Your task to perform on an android device: Open Chrome and go to settings Image 0: 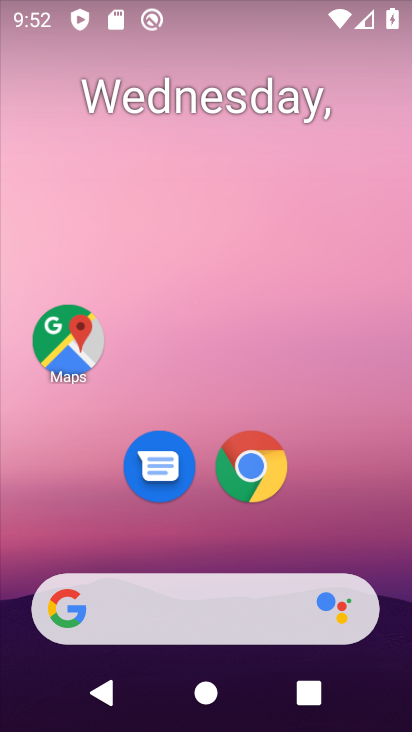
Step 0: click (252, 468)
Your task to perform on an android device: Open Chrome and go to settings Image 1: 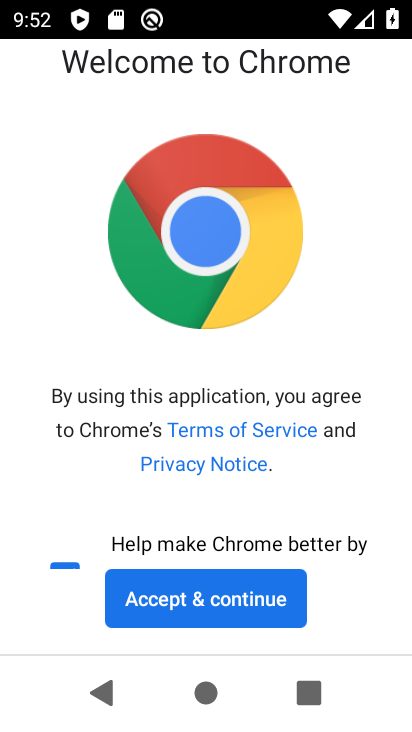
Step 1: click (210, 607)
Your task to perform on an android device: Open Chrome and go to settings Image 2: 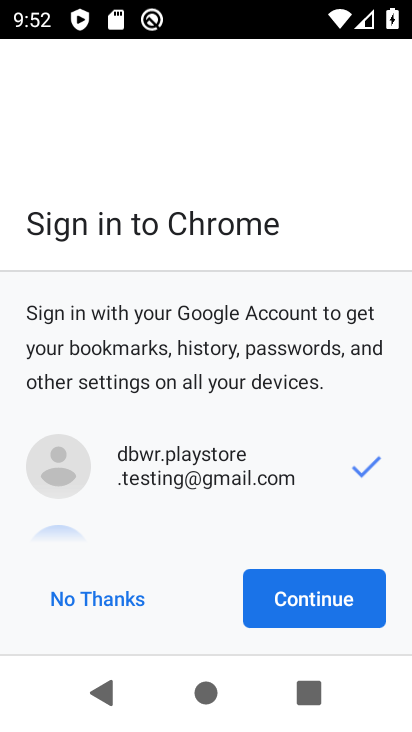
Step 2: click (324, 593)
Your task to perform on an android device: Open Chrome and go to settings Image 3: 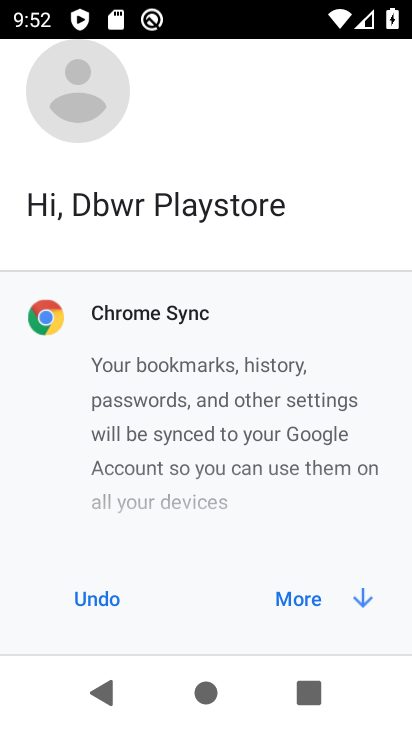
Step 3: click (297, 597)
Your task to perform on an android device: Open Chrome and go to settings Image 4: 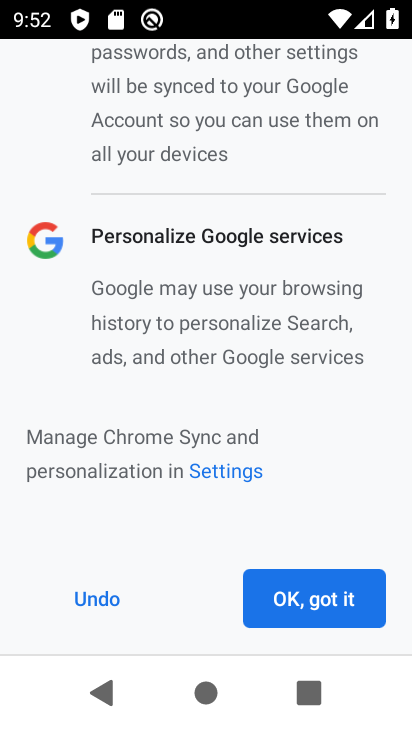
Step 4: click (297, 597)
Your task to perform on an android device: Open Chrome and go to settings Image 5: 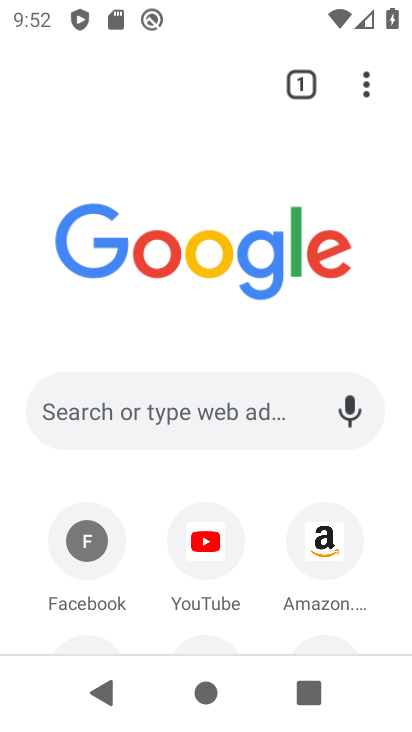
Step 5: click (367, 93)
Your task to perform on an android device: Open Chrome and go to settings Image 6: 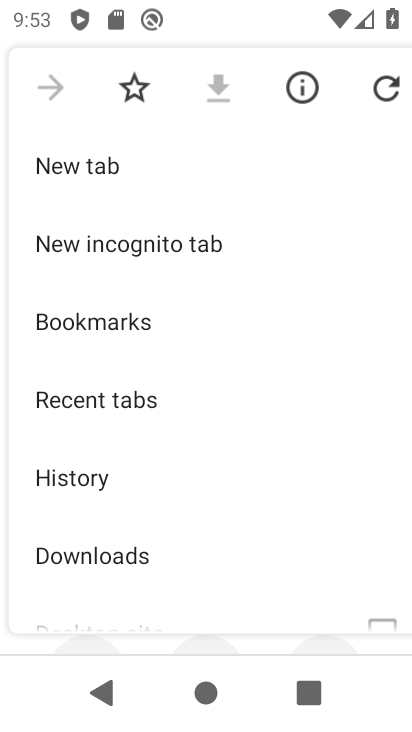
Step 6: drag from (130, 573) to (158, 264)
Your task to perform on an android device: Open Chrome and go to settings Image 7: 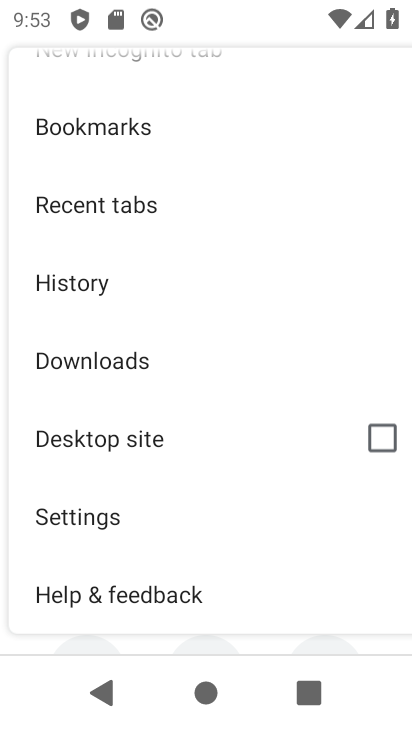
Step 7: click (80, 511)
Your task to perform on an android device: Open Chrome and go to settings Image 8: 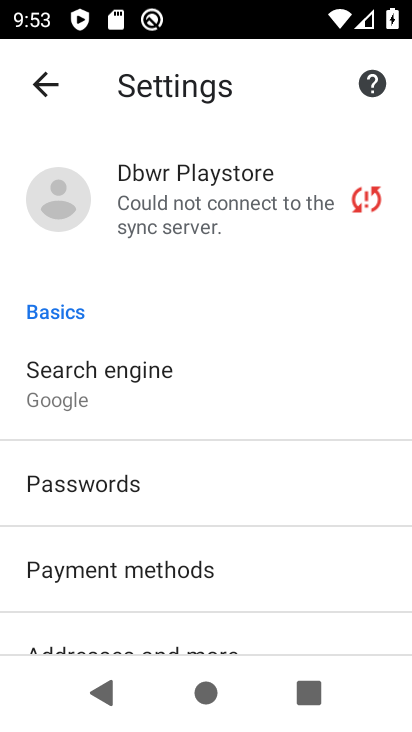
Step 8: task complete